Your task to perform on an android device: Open settings Image 0: 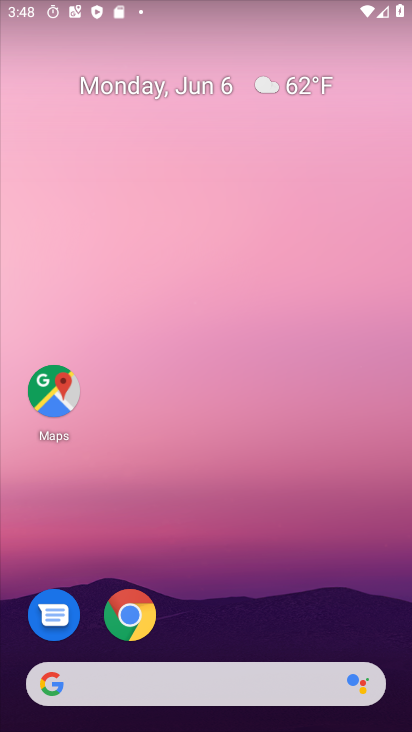
Step 0: drag from (345, 633) to (360, 26)
Your task to perform on an android device: Open settings Image 1: 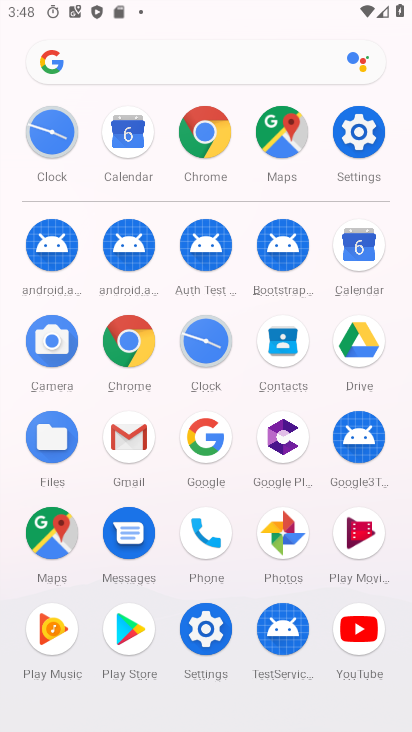
Step 1: click (373, 125)
Your task to perform on an android device: Open settings Image 2: 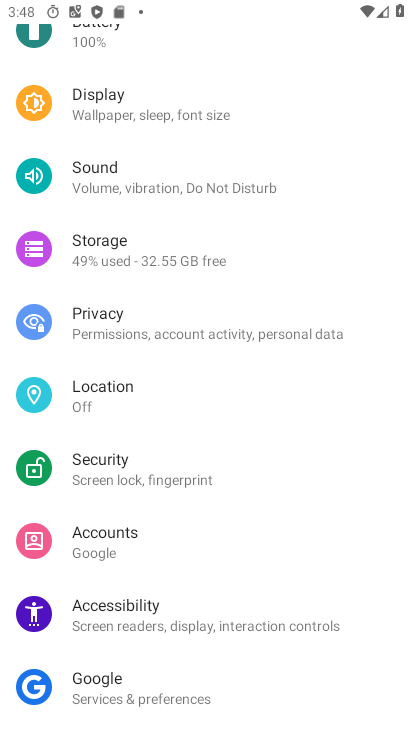
Step 2: task complete